Your task to perform on an android device: See recent photos Image 0: 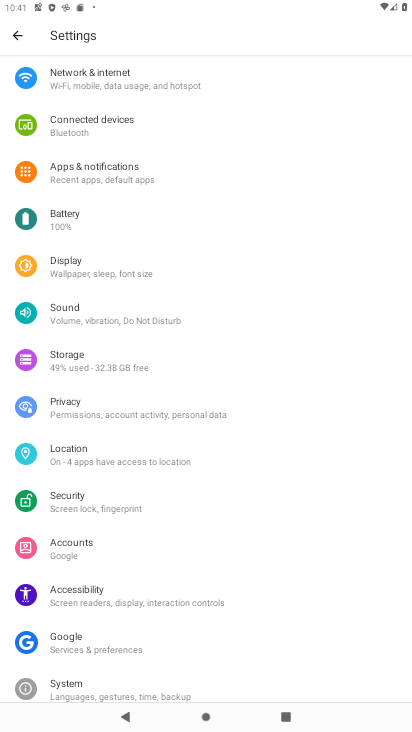
Step 0: press home button
Your task to perform on an android device: See recent photos Image 1: 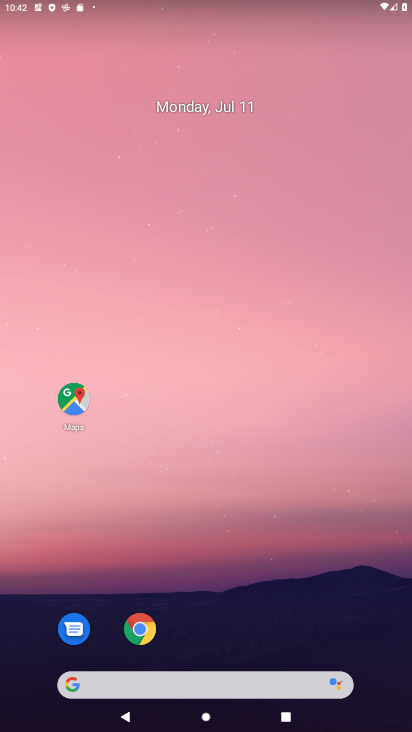
Step 1: drag from (328, 506) to (268, 119)
Your task to perform on an android device: See recent photos Image 2: 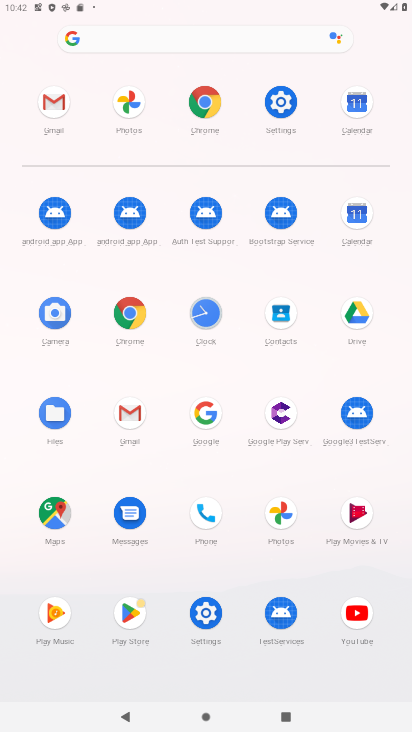
Step 2: click (282, 513)
Your task to perform on an android device: See recent photos Image 3: 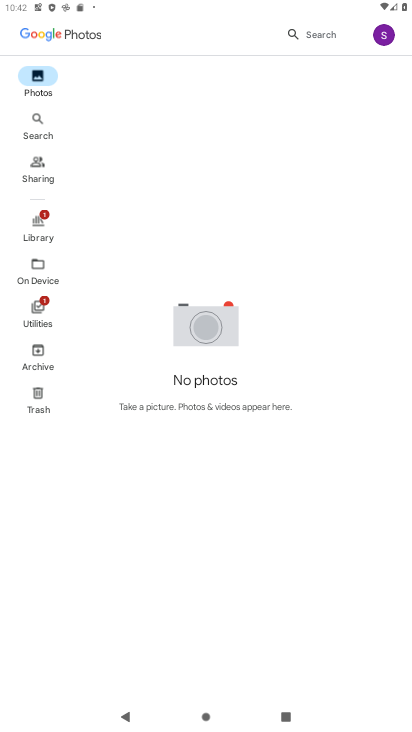
Step 3: task complete